Your task to perform on an android device: What's the weather? Image 0: 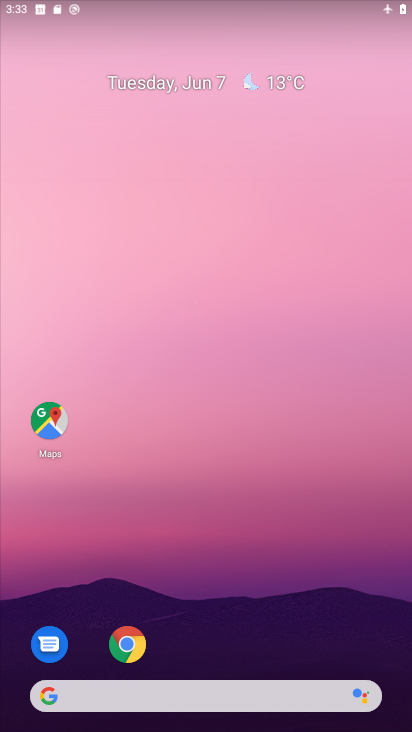
Step 0: click (289, 93)
Your task to perform on an android device: What's the weather? Image 1: 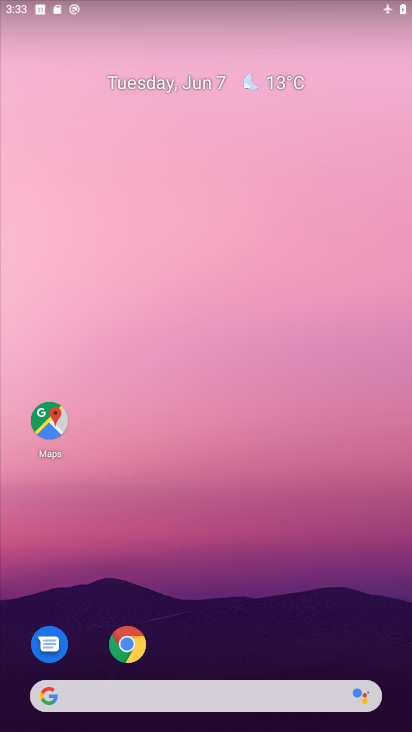
Step 1: click (271, 79)
Your task to perform on an android device: What's the weather? Image 2: 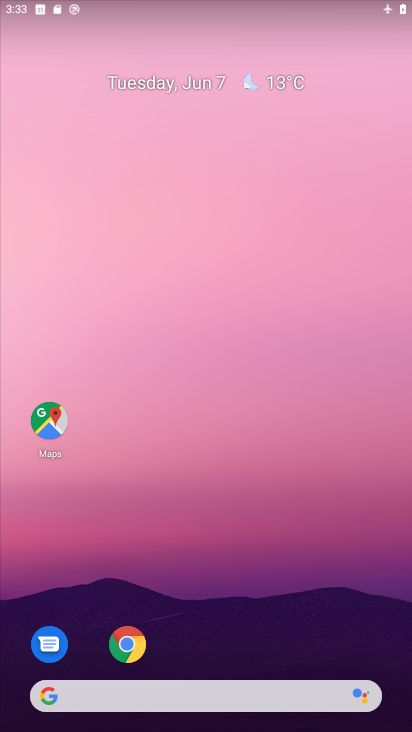
Step 2: click (264, 700)
Your task to perform on an android device: What's the weather? Image 3: 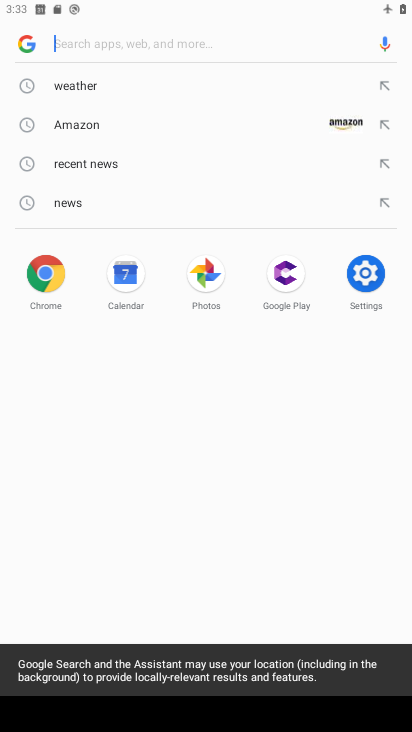
Step 3: click (95, 91)
Your task to perform on an android device: What's the weather? Image 4: 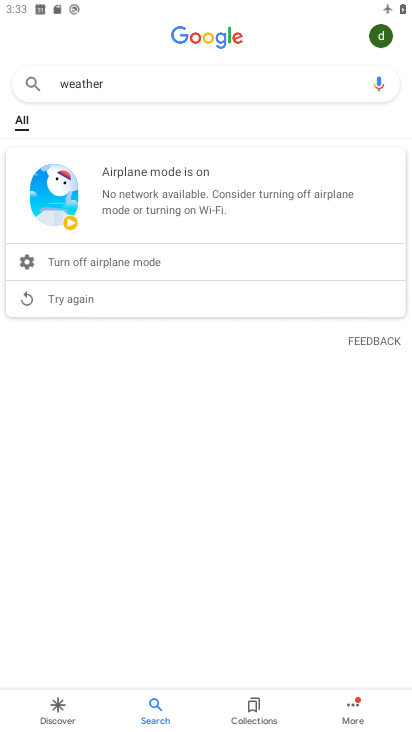
Step 4: task complete